Your task to perform on an android device: turn on notifications settings in the gmail app Image 0: 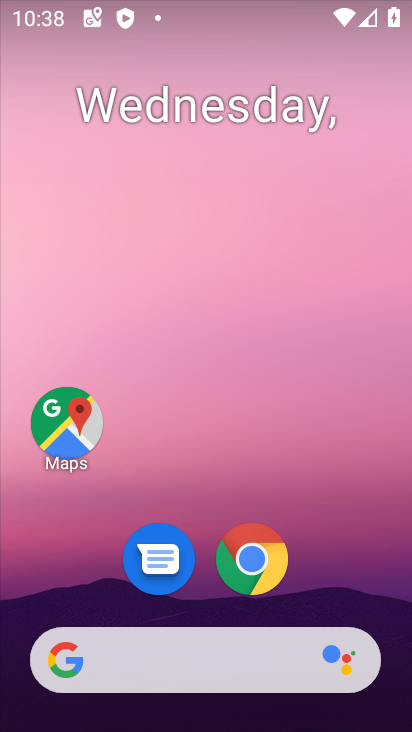
Step 0: drag from (340, 568) to (193, 78)
Your task to perform on an android device: turn on notifications settings in the gmail app Image 1: 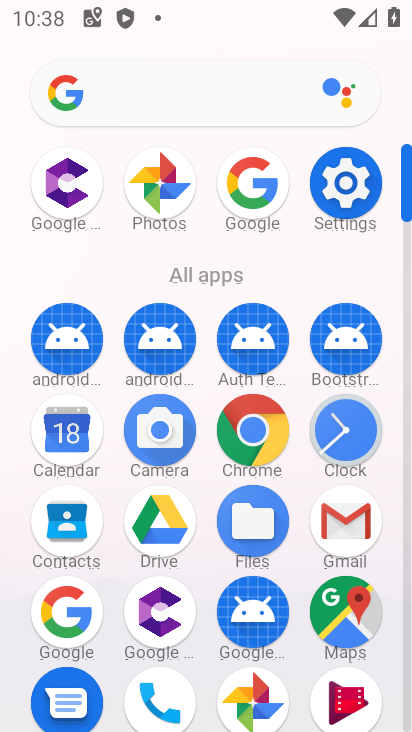
Step 1: click (345, 517)
Your task to perform on an android device: turn on notifications settings in the gmail app Image 2: 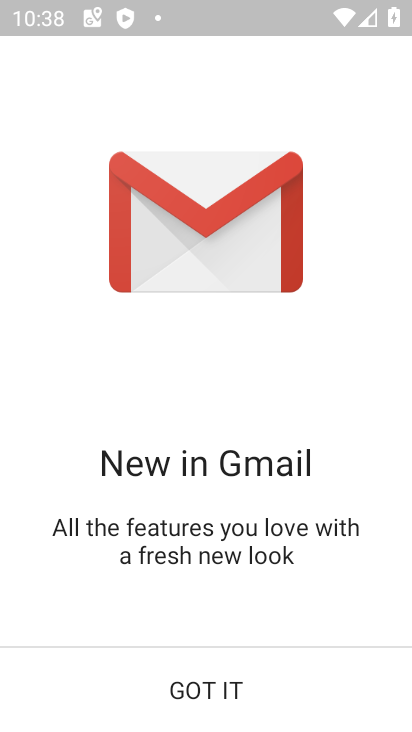
Step 2: click (220, 682)
Your task to perform on an android device: turn on notifications settings in the gmail app Image 3: 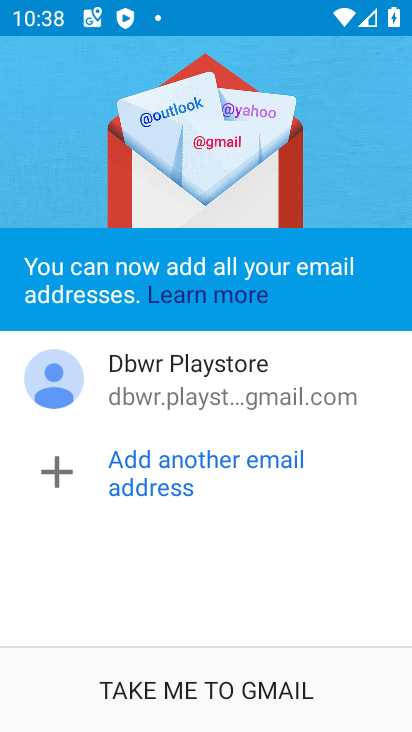
Step 3: click (202, 693)
Your task to perform on an android device: turn on notifications settings in the gmail app Image 4: 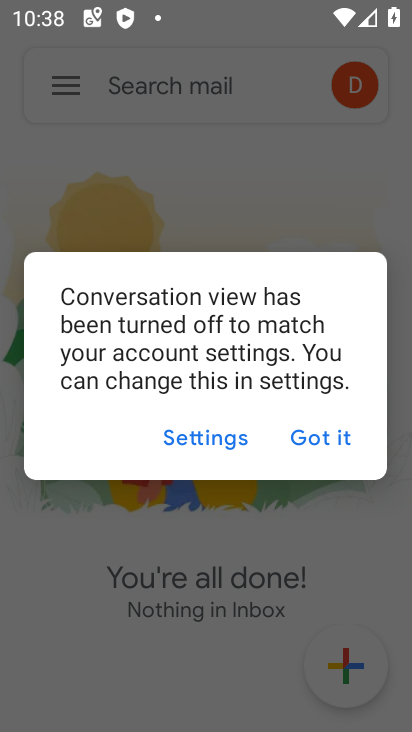
Step 4: click (333, 442)
Your task to perform on an android device: turn on notifications settings in the gmail app Image 5: 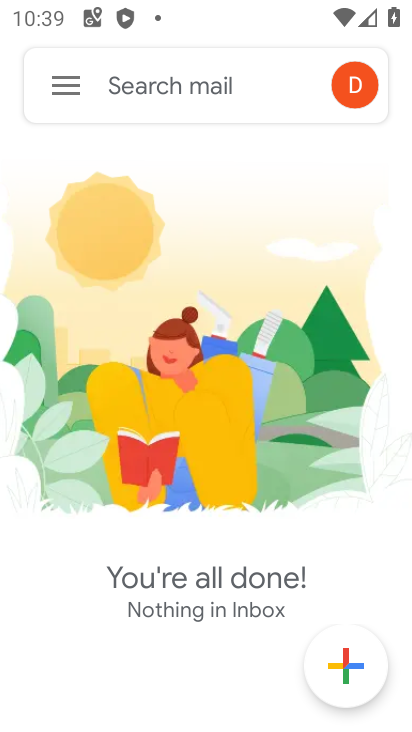
Step 5: click (64, 94)
Your task to perform on an android device: turn on notifications settings in the gmail app Image 6: 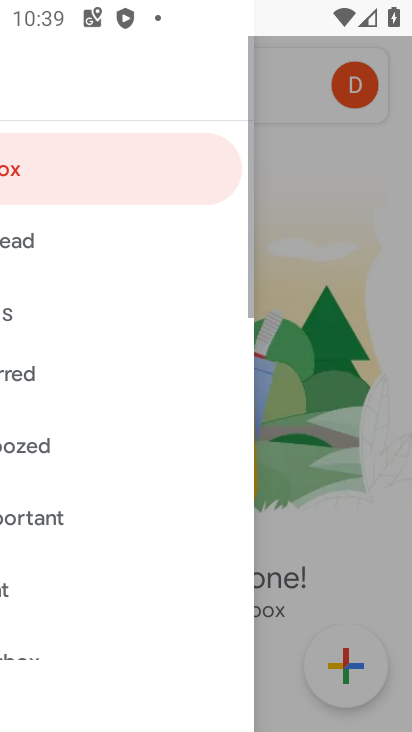
Step 6: click (68, 85)
Your task to perform on an android device: turn on notifications settings in the gmail app Image 7: 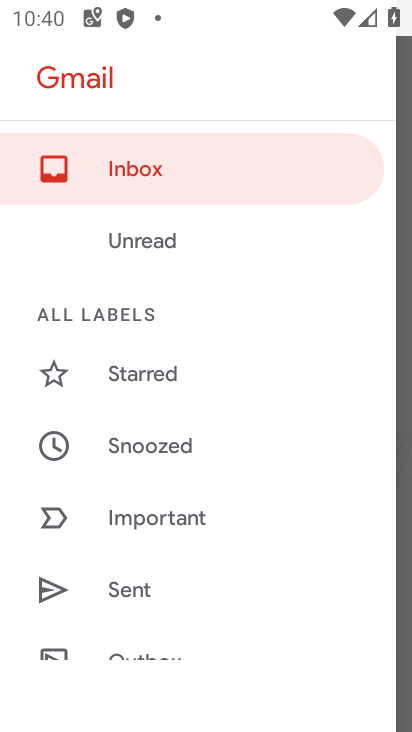
Step 7: drag from (204, 408) to (221, 309)
Your task to perform on an android device: turn on notifications settings in the gmail app Image 8: 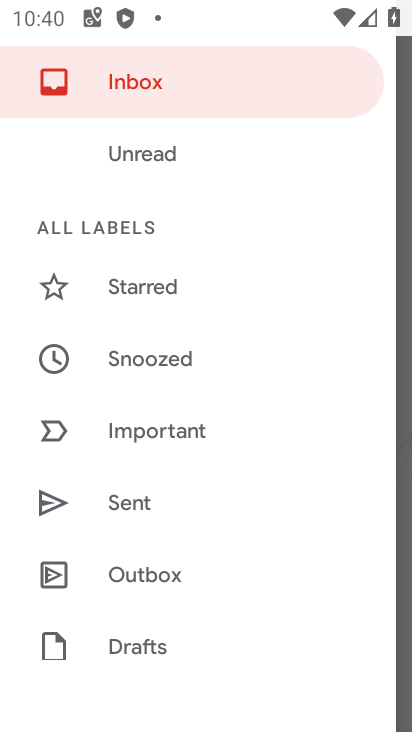
Step 8: drag from (173, 515) to (212, 394)
Your task to perform on an android device: turn on notifications settings in the gmail app Image 9: 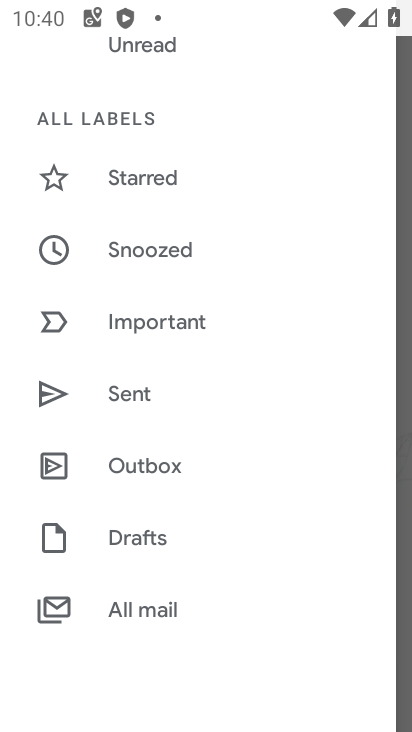
Step 9: drag from (144, 564) to (191, 450)
Your task to perform on an android device: turn on notifications settings in the gmail app Image 10: 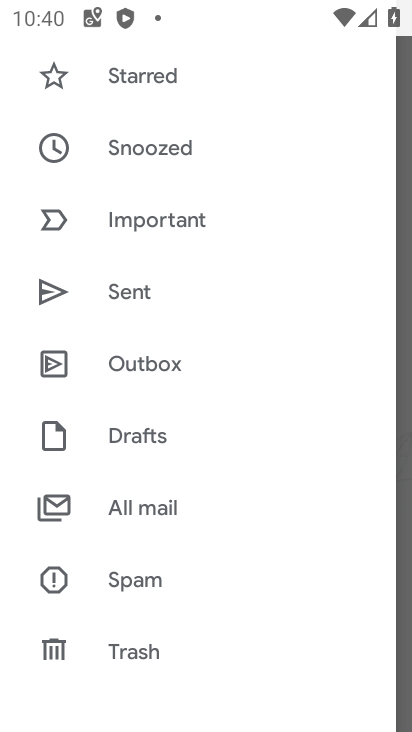
Step 10: drag from (154, 550) to (199, 421)
Your task to perform on an android device: turn on notifications settings in the gmail app Image 11: 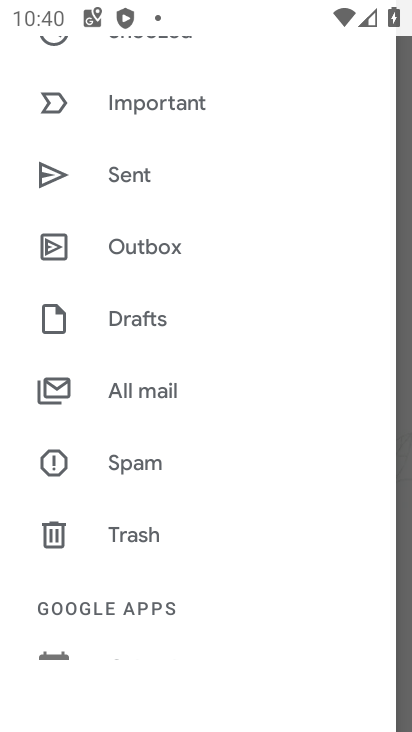
Step 11: drag from (162, 503) to (203, 390)
Your task to perform on an android device: turn on notifications settings in the gmail app Image 12: 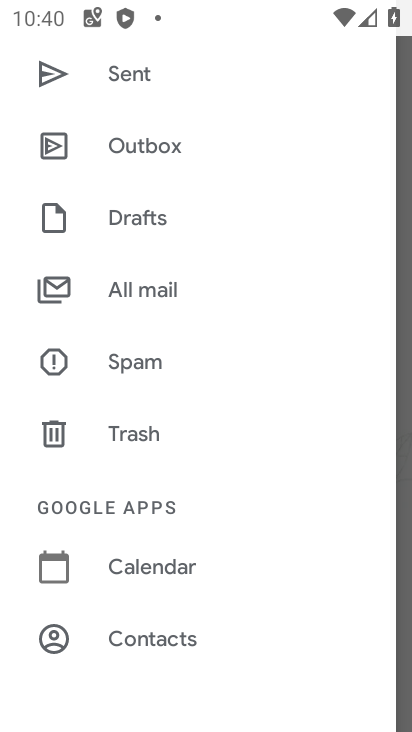
Step 12: drag from (185, 536) to (223, 411)
Your task to perform on an android device: turn on notifications settings in the gmail app Image 13: 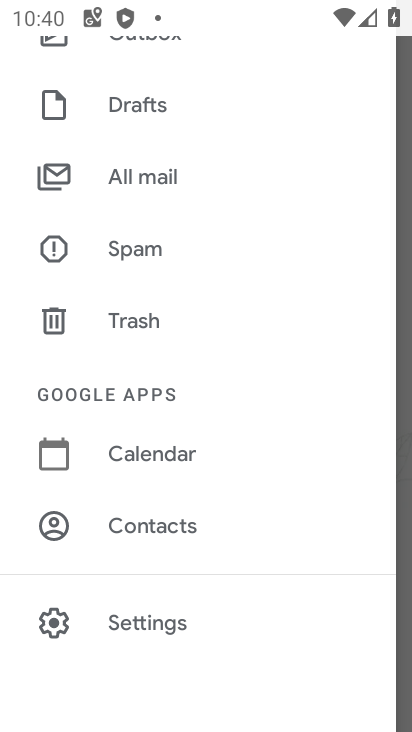
Step 13: click (137, 621)
Your task to perform on an android device: turn on notifications settings in the gmail app Image 14: 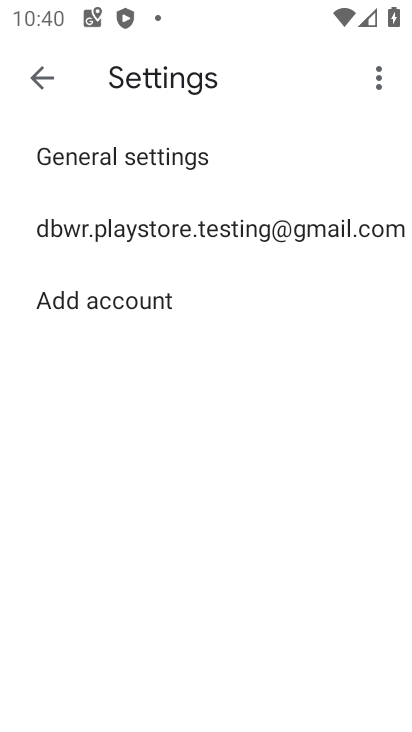
Step 14: click (264, 230)
Your task to perform on an android device: turn on notifications settings in the gmail app Image 15: 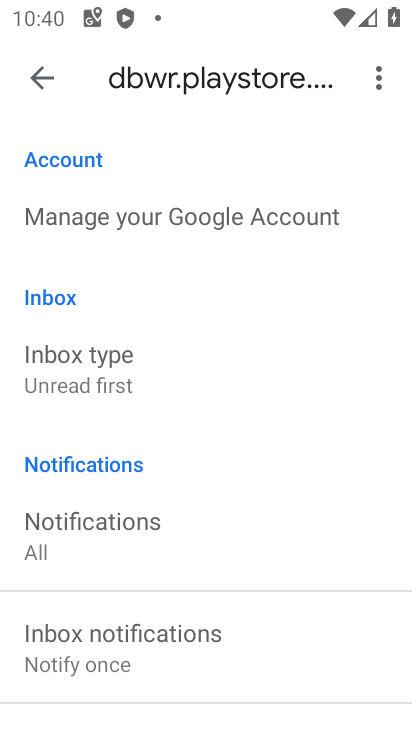
Step 15: drag from (127, 581) to (172, 420)
Your task to perform on an android device: turn on notifications settings in the gmail app Image 16: 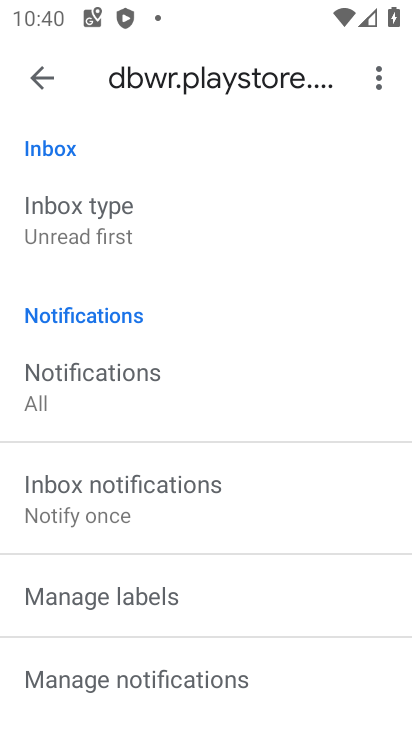
Step 16: drag from (120, 559) to (205, 444)
Your task to perform on an android device: turn on notifications settings in the gmail app Image 17: 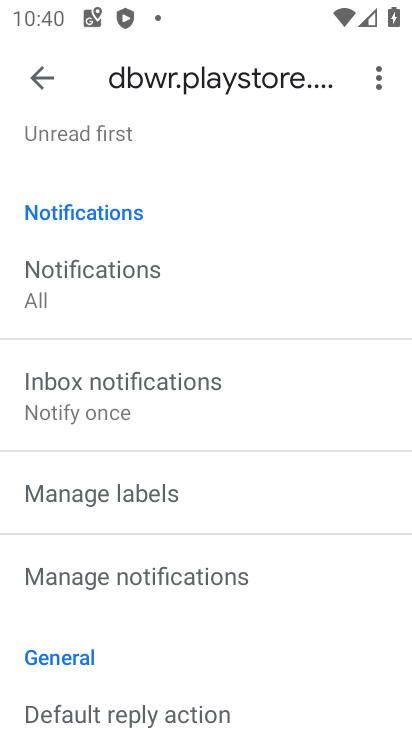
Step 17: click (159, 575)
Your task to perform on an android device: turn on notifications settings in the gmail app Image 18: 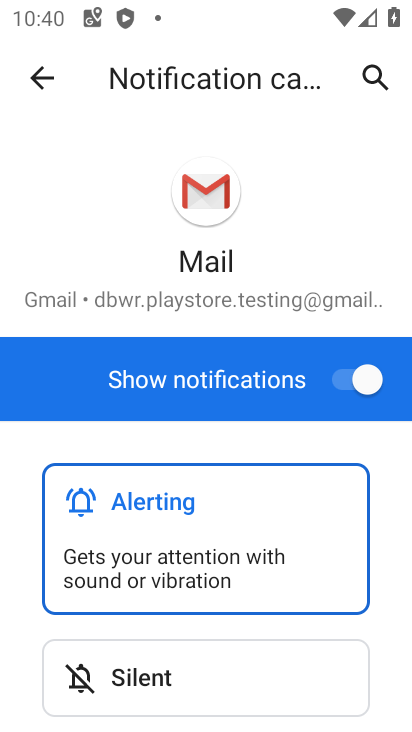
Step 18: task complete